Your task to perform on an android device: Go to privacy settings Image 0: 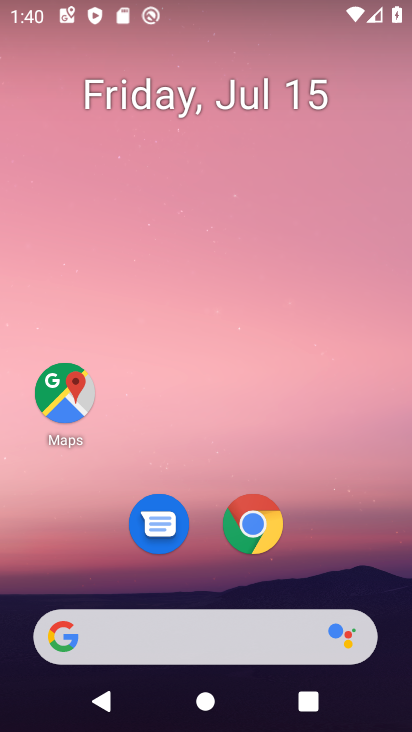
Step 0: drag from (273, 430) to (337, 96)
Your task to perform on an android device: Go to privacy settings Image 1: 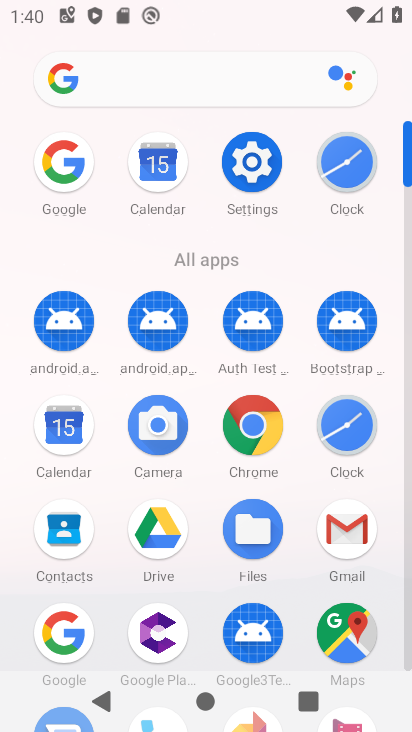
Step 1: click (261, 161)
Your task to perform on an android device: Go to privacy settings Image 2: 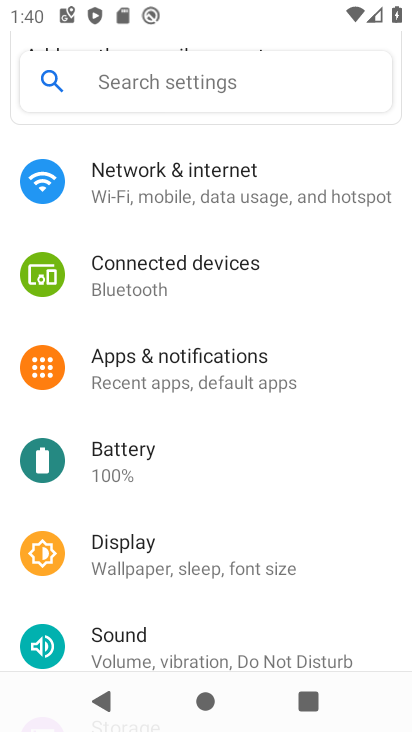
Step 2: drag from (231, 514) to (310, 80)
Your task to perform on an android device: Go to privacy settings Image 3: 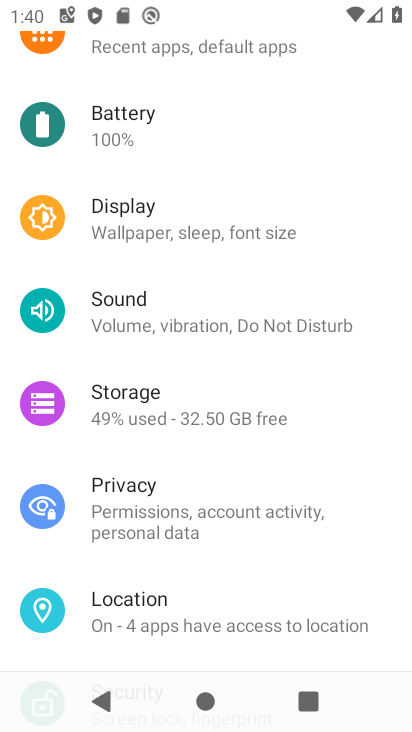
Step 3: click (142, 495)
Your task to perform on an android device: Go to privacy settings Image 4: 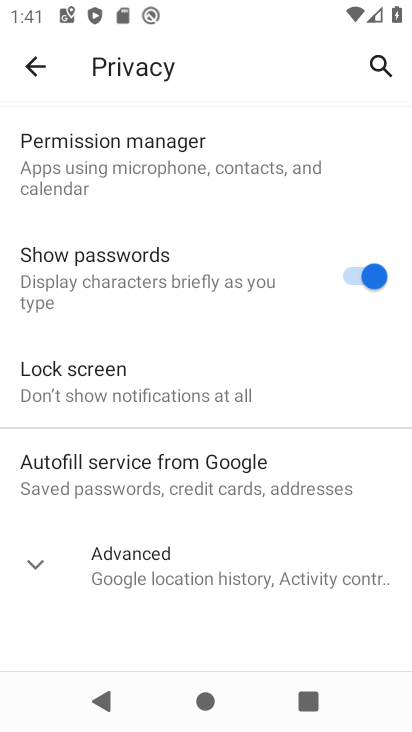
Step 4: task complete